Your task to perform on an android device: Search for the new Apple Watch on Best Buy Image 0: 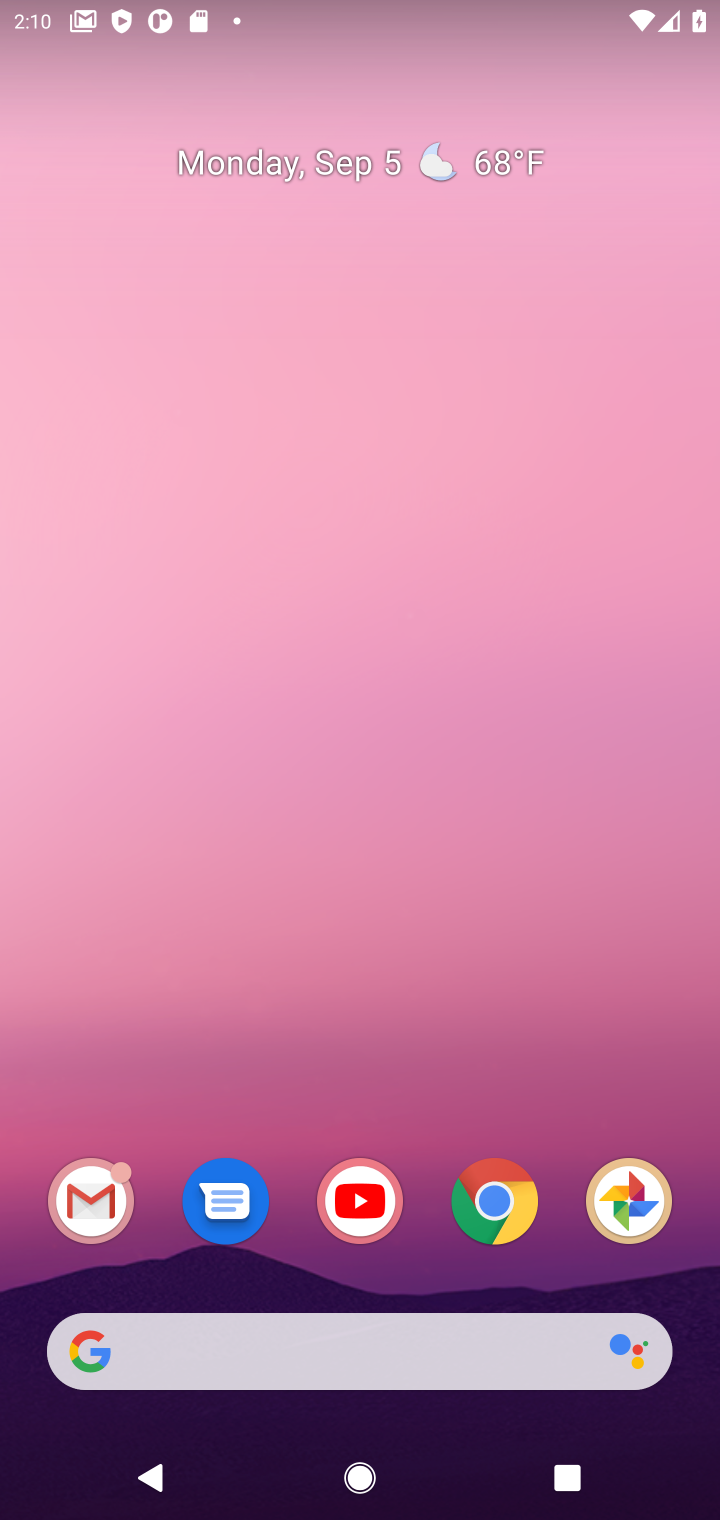
Step 0: press home button
Your task to perform on an android device: Search for the new Apple Watch on Best Buy Image 1: 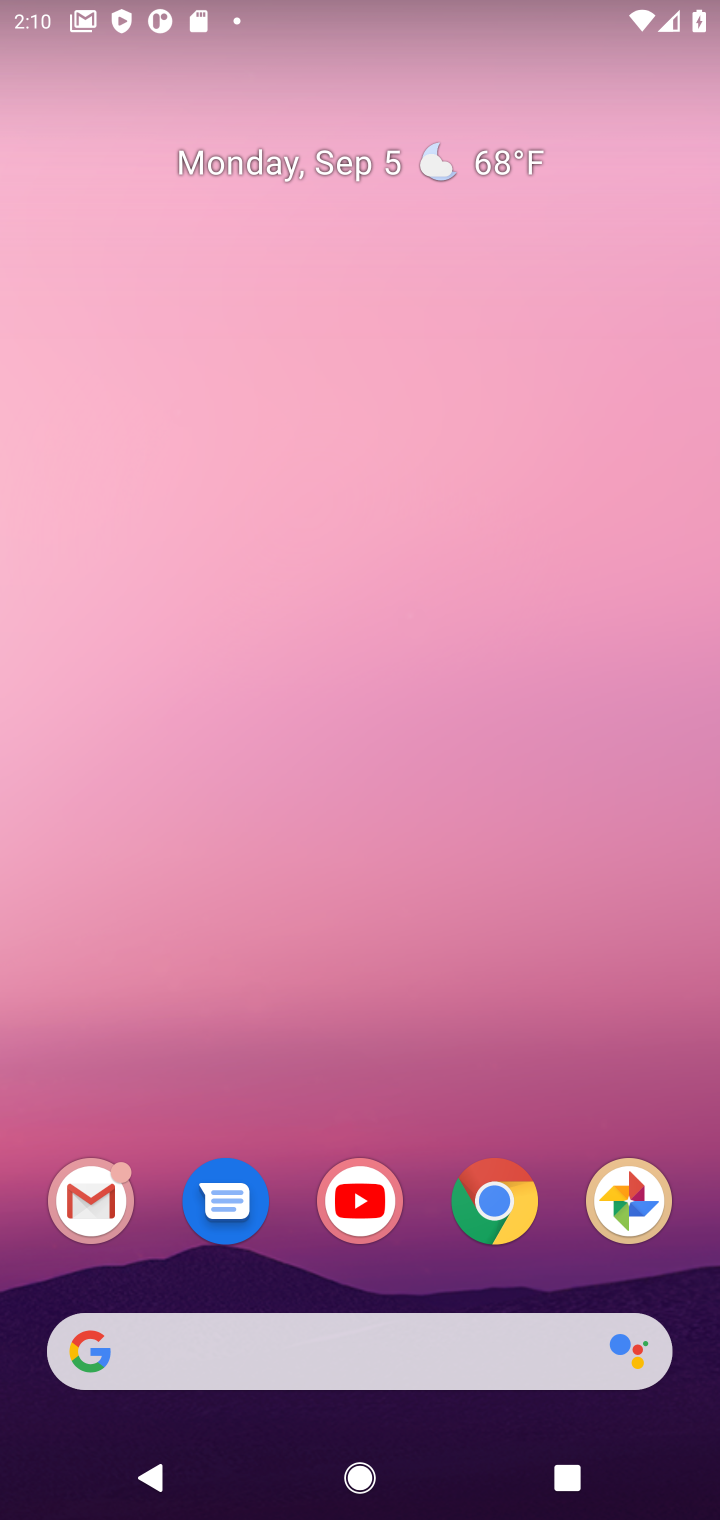
Step 1: click (495, 1190)
Your task to perform on an android device: Search for the new Apple Watch on Best Buy Image 2: 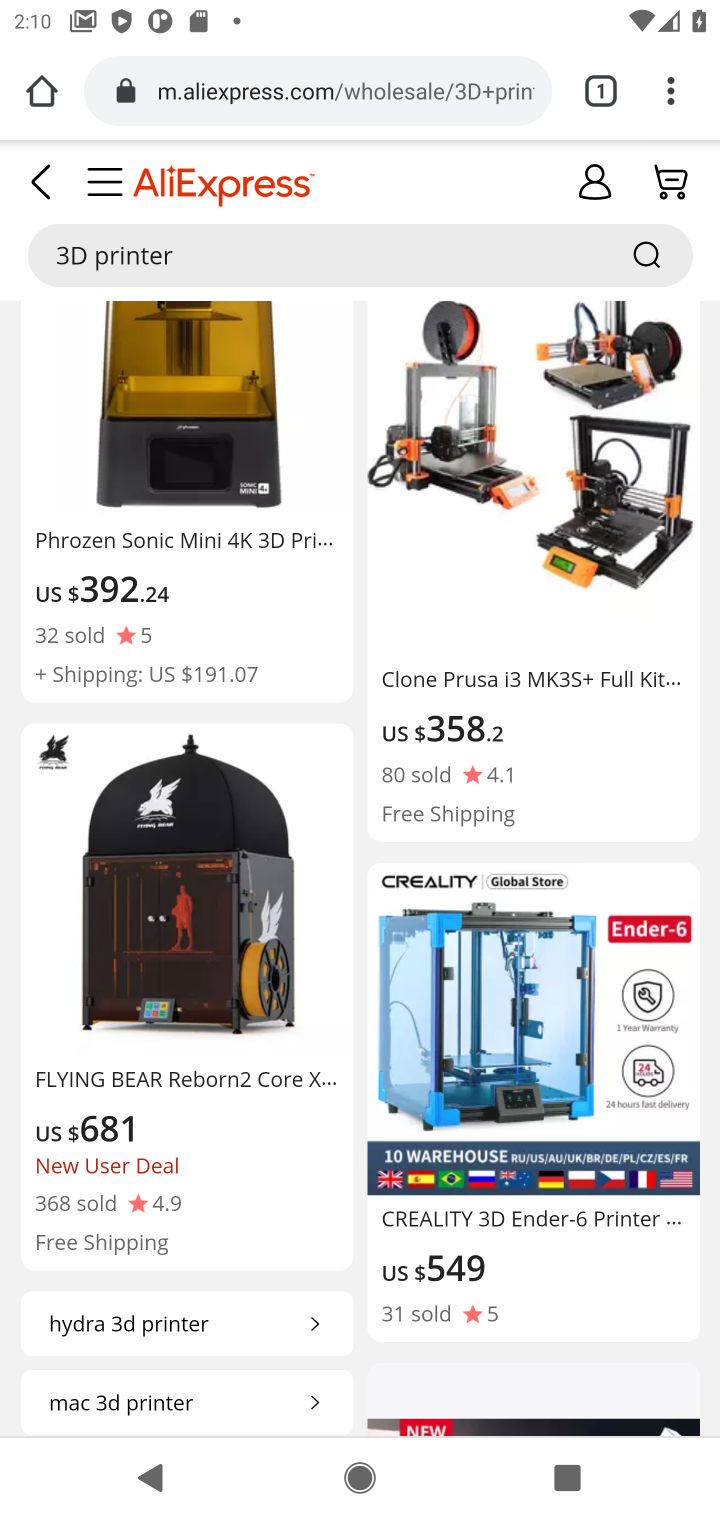
Step 2: click (416, 80)
Your task to perform on an android device: Search for the new Apple Watch on Best Buy Image 3: 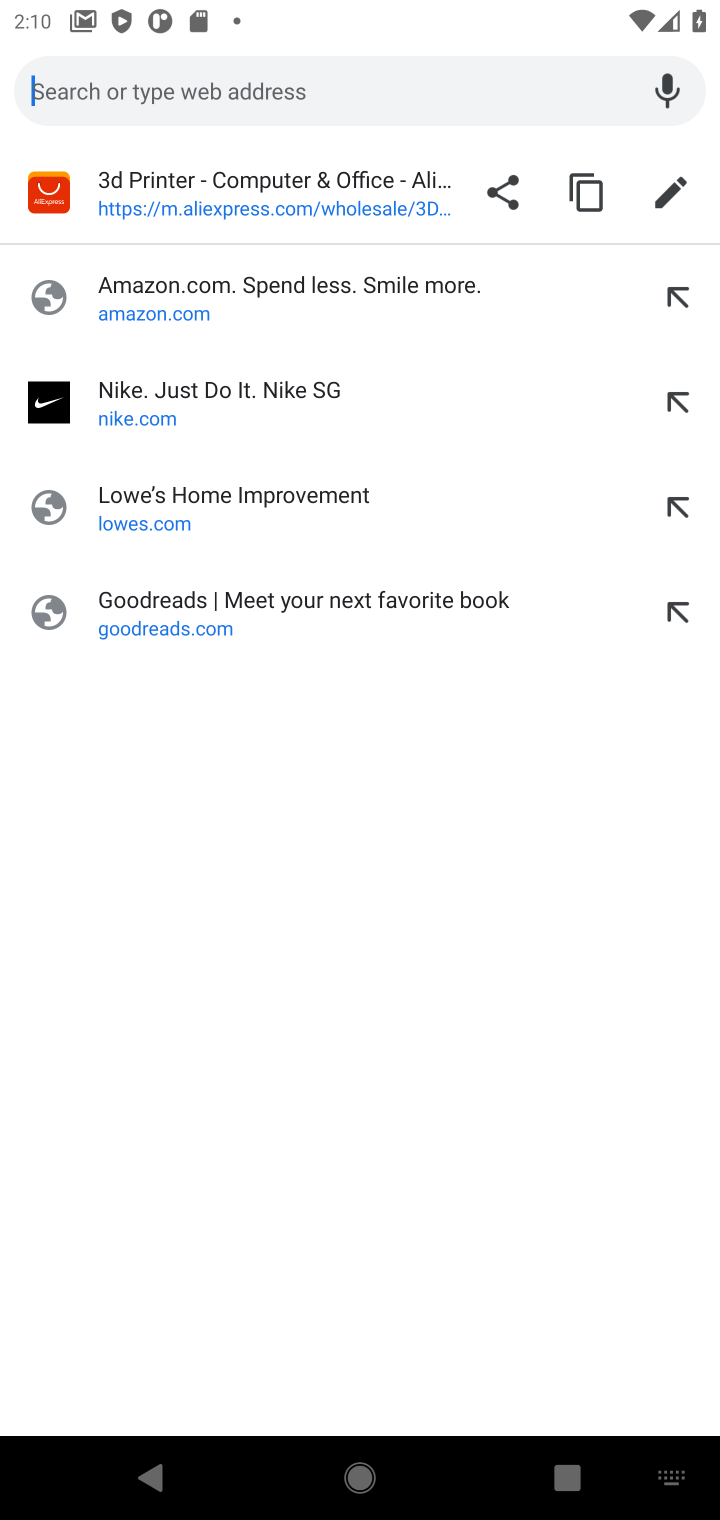
Step 3: type "Best Buy"
Your task to perform on an android device: Search for the new Apple Watch on Best Buy Image 4: 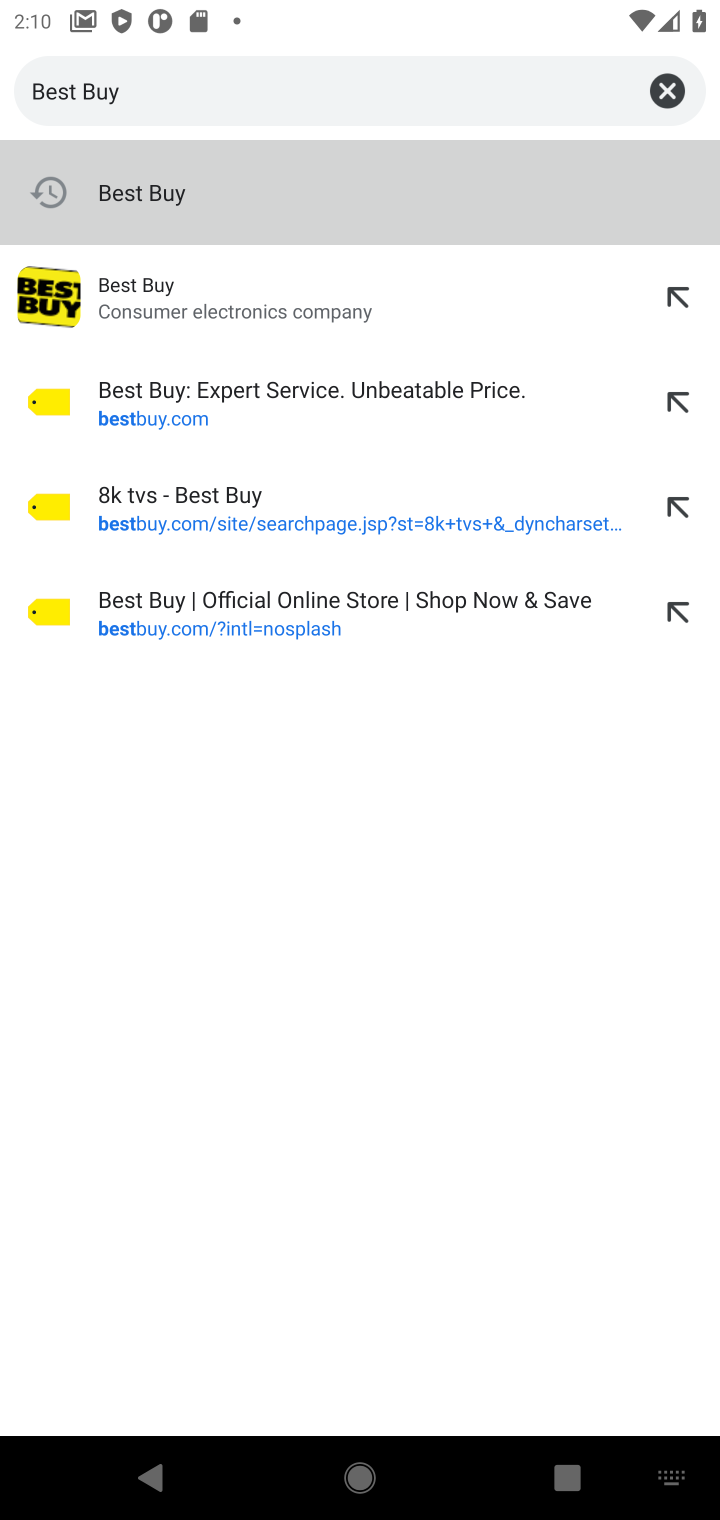
Step 4: press enter
Your task to perform on an android device: Search for the new Apple Watch on Best Buy Image 5: 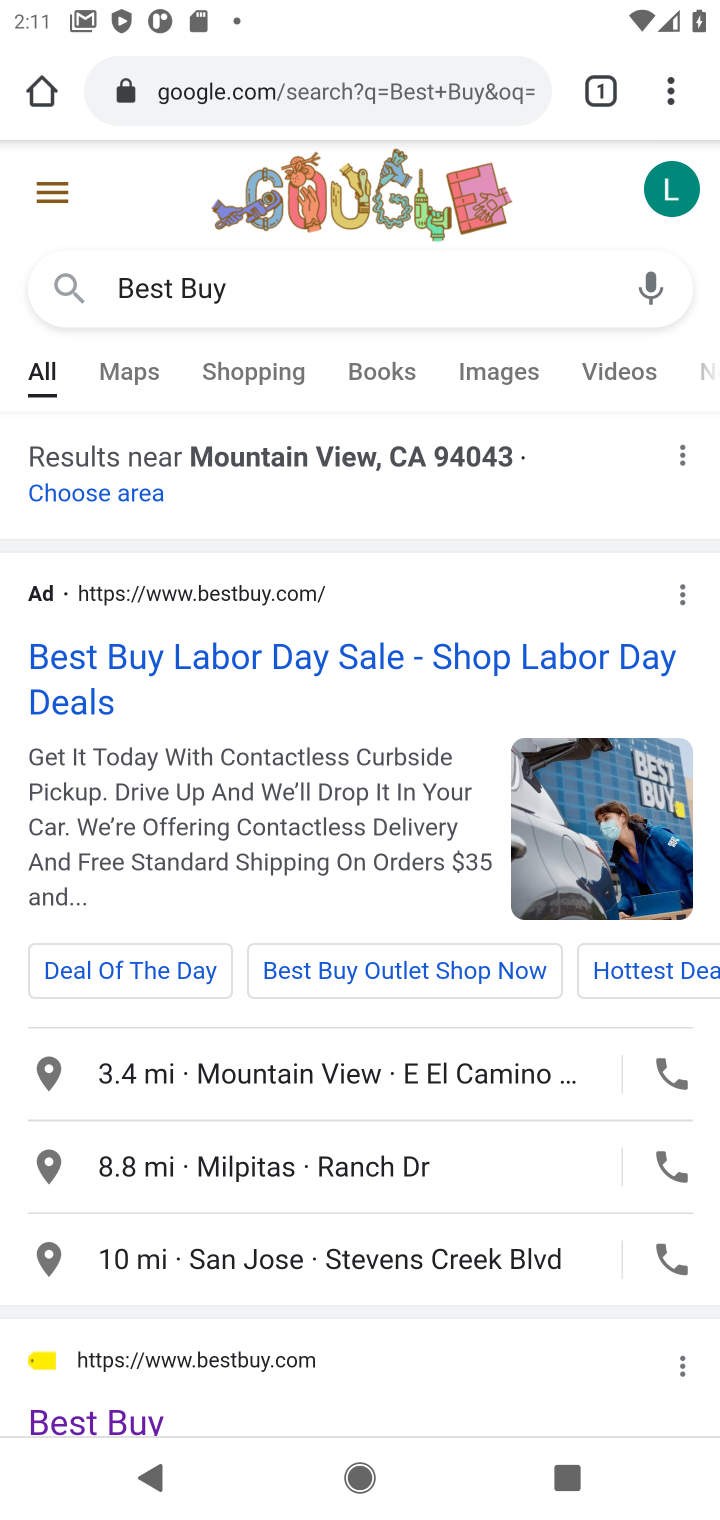
Step 5: drag from (357, 1331) to (668, 210)
Your task to perform on an android device: Search for the new Apple Watch on Best Buy Image 6: 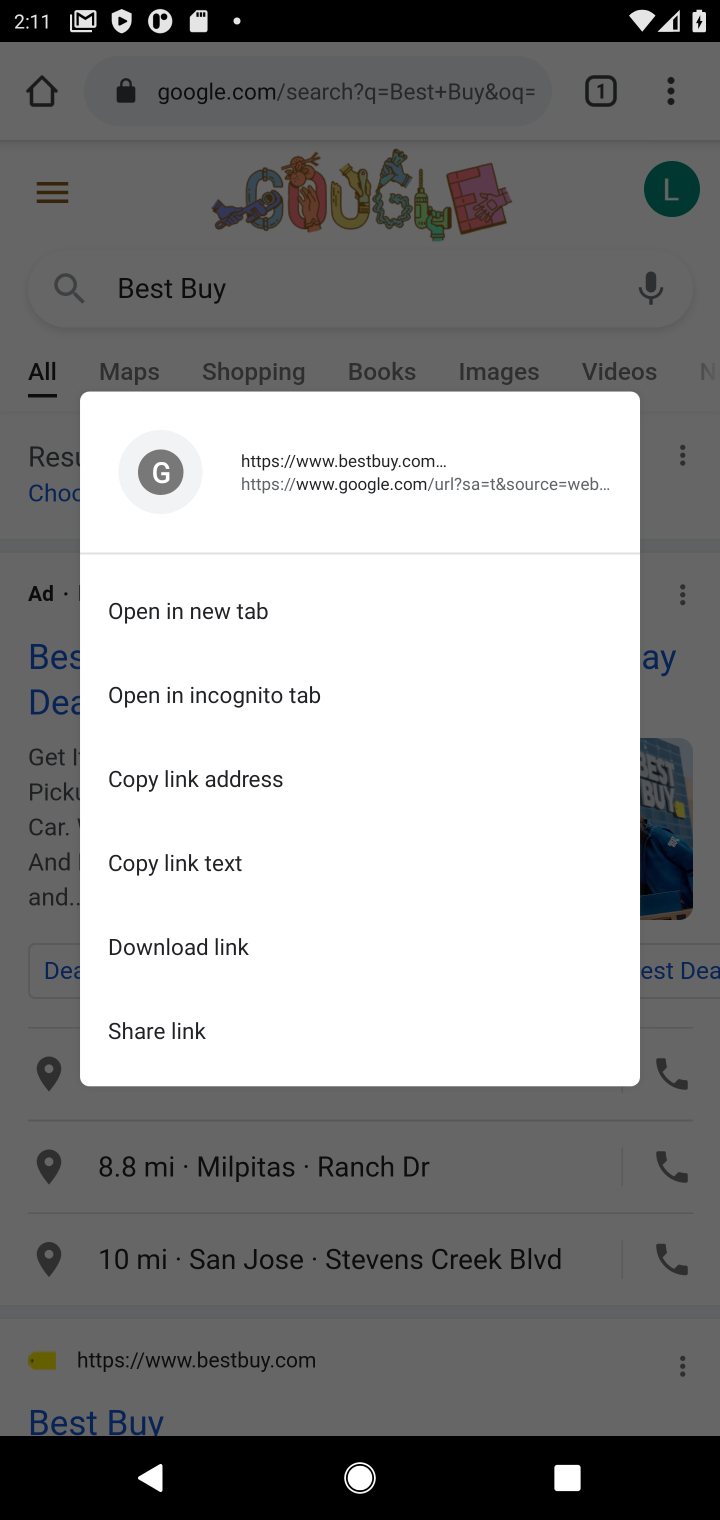
Step 6: click (564, 1333)
Your task to perform on an android device: Search for the new Apple Watch on Best Buy Image 7: 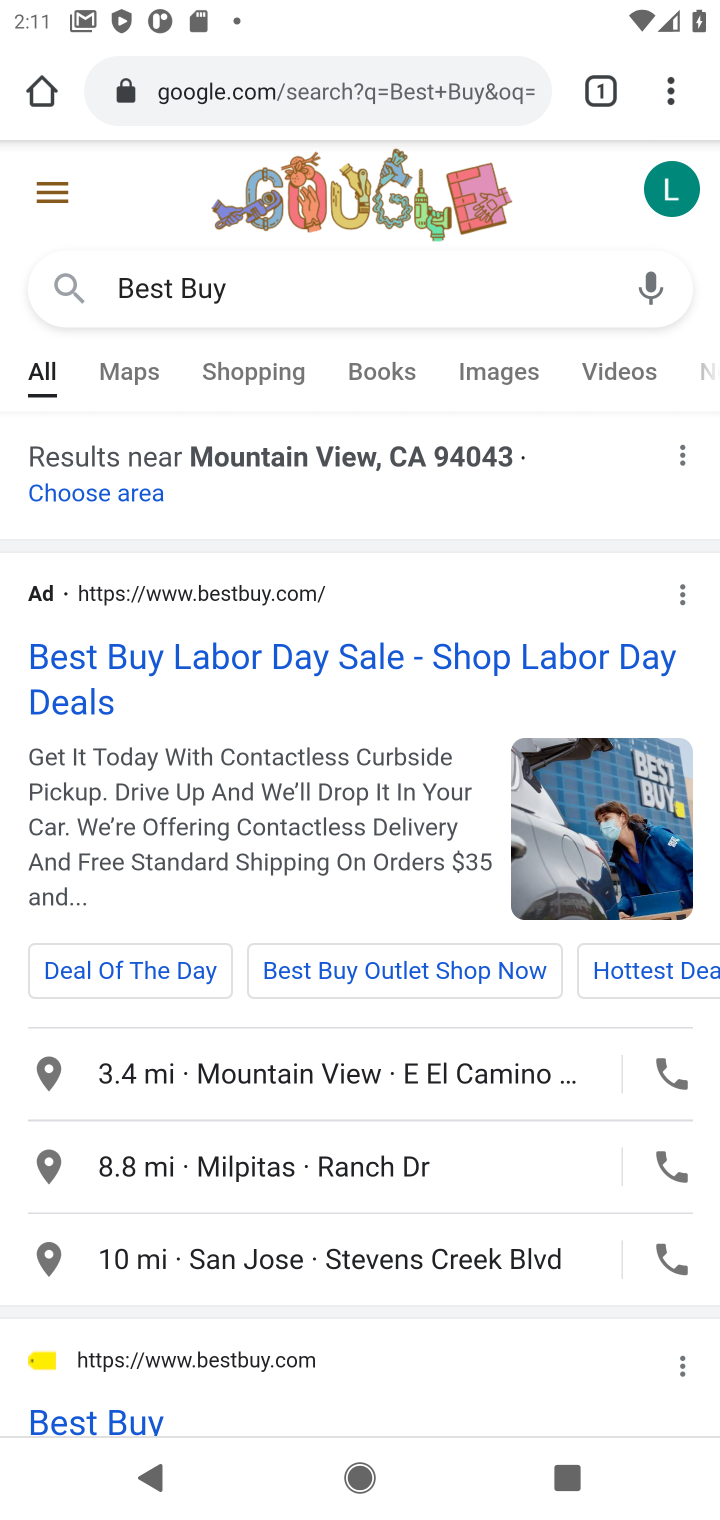
Step 7: drag from (87, 1310) to (460, 643)
Your task to perform on an android device: Search for the new Apple Watch on Best Buy Image 8: 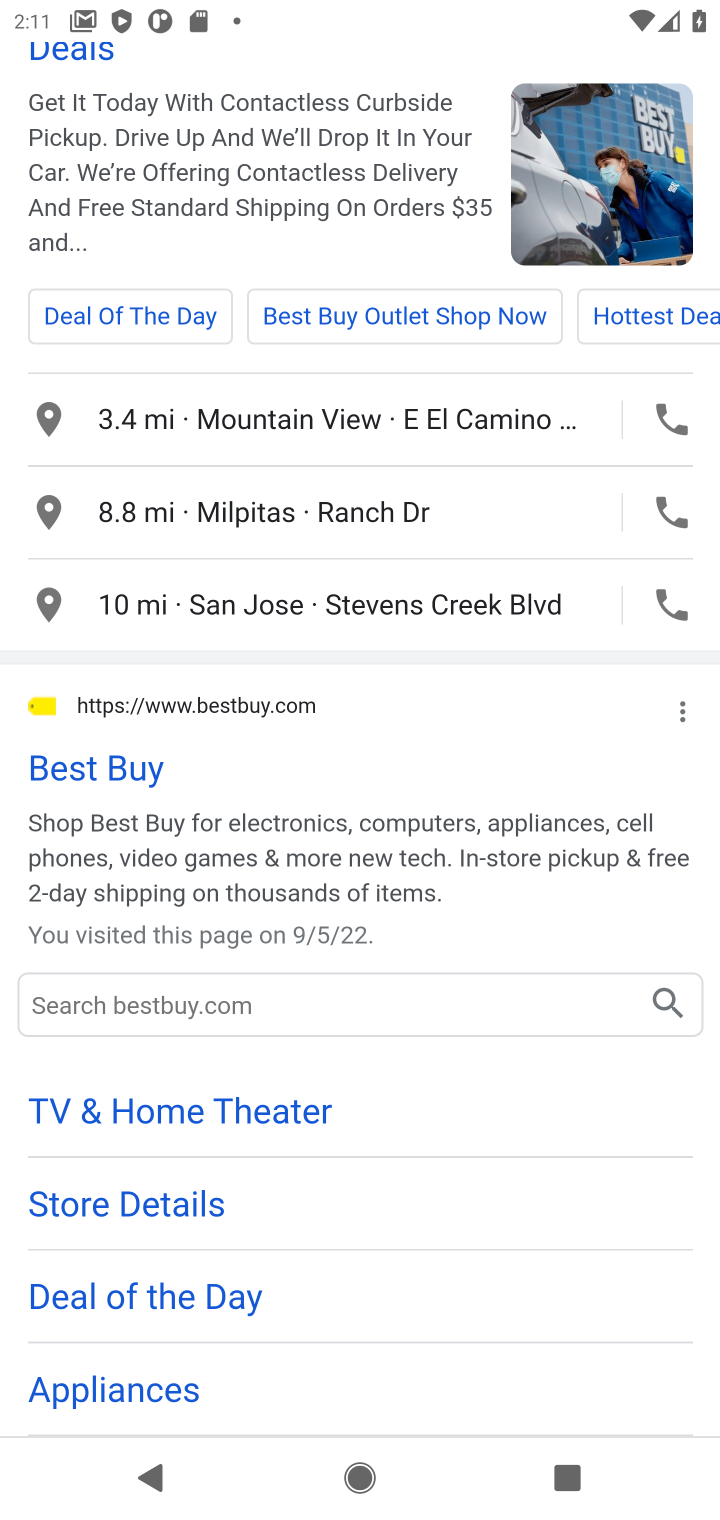
Step 8: click (131, 769)
Your task to perform on an android device: Search for the new Apple Watch on Best Buy Image 9: 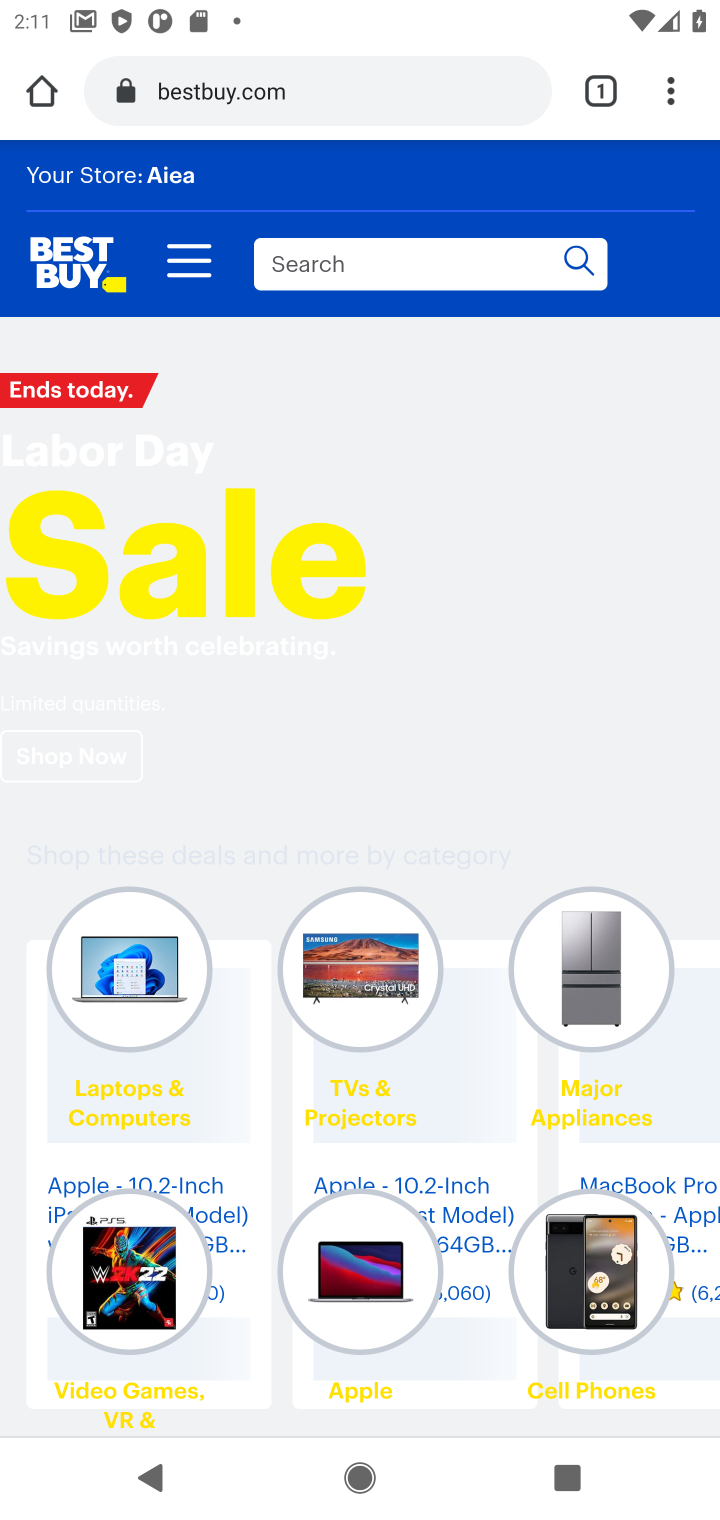
Step 9: click (440, 274)
Your task to perform on an android device: Search for the new Apple Watch on Best Buy Image 10: 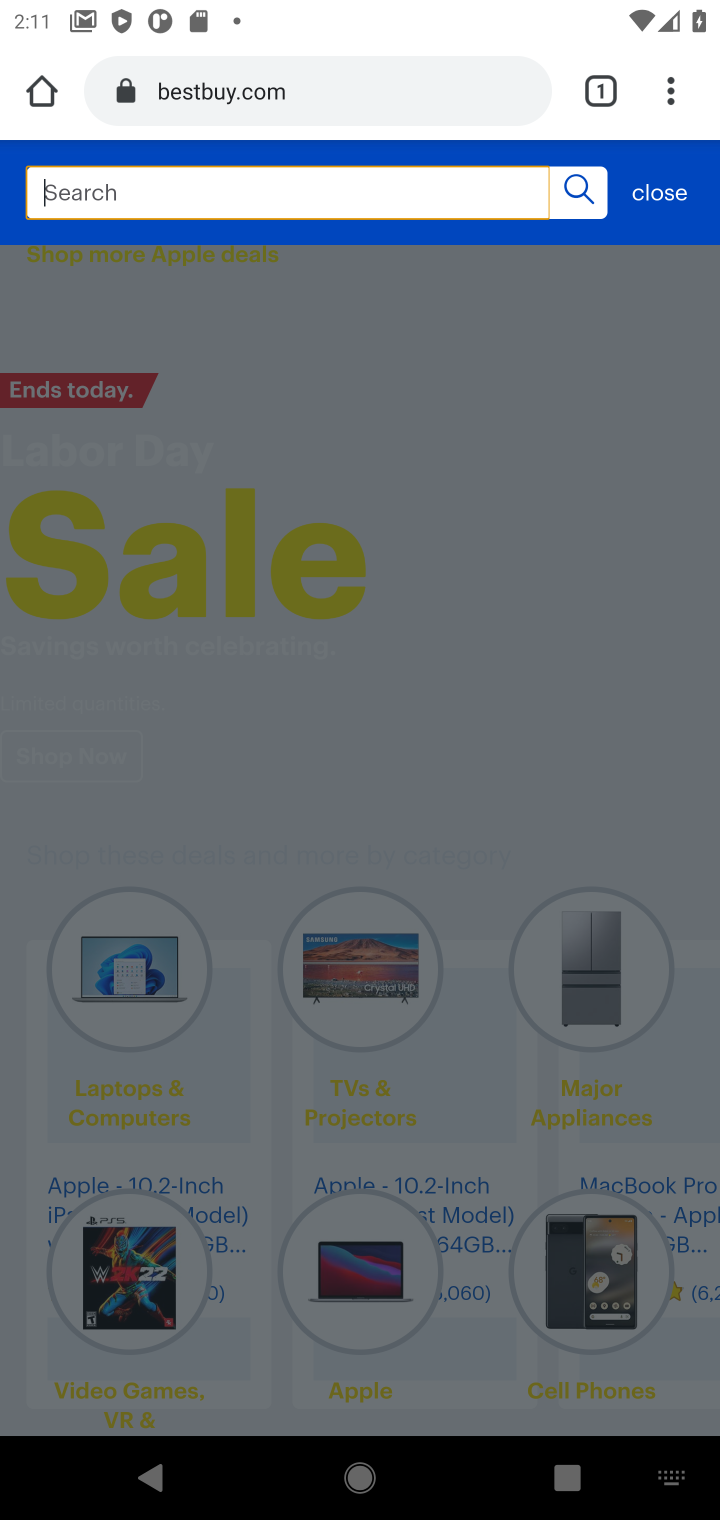
Step 10: press enter
Your task to perform on an android device: Search for the new Apple Watch on Best Buy Image 11: 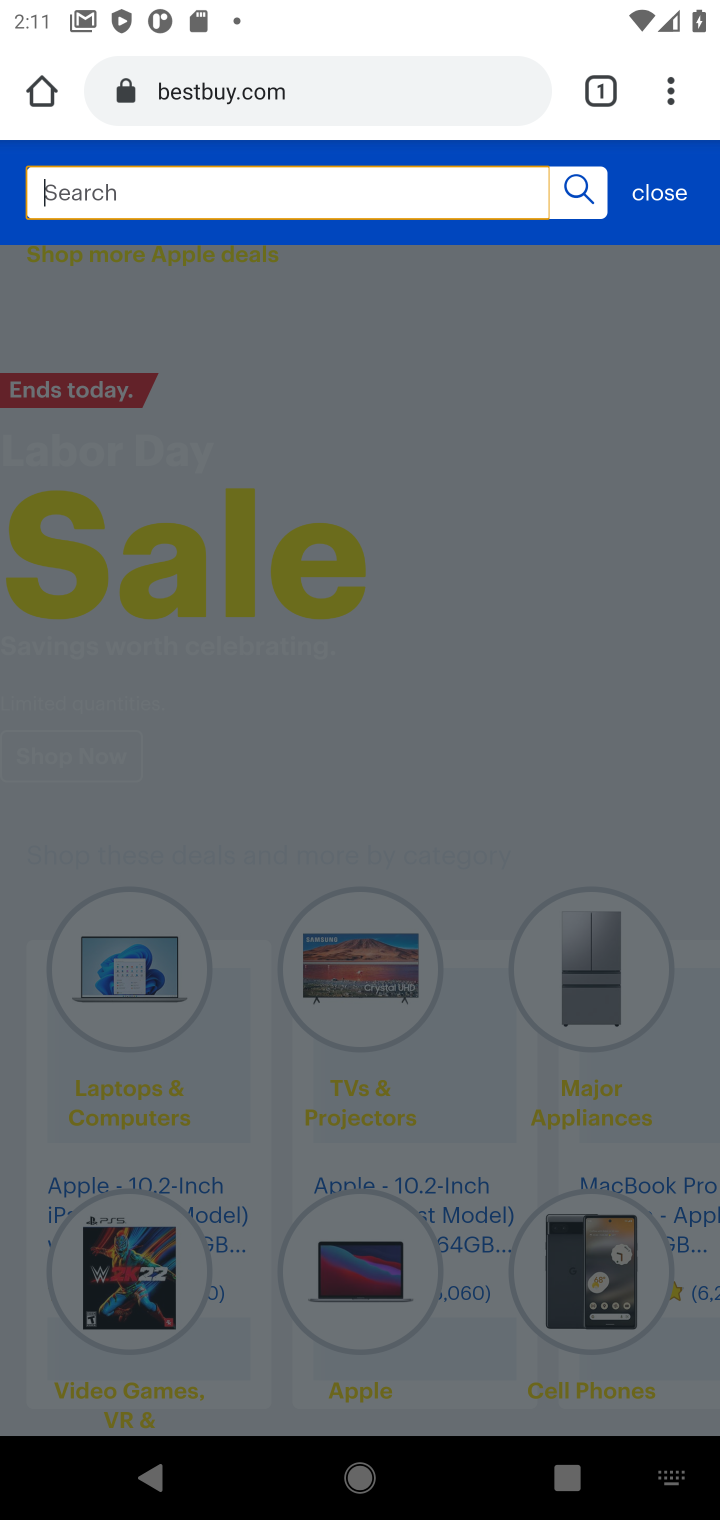
Step 11: type "Apple Watch"
Your task to perform on an android device: Search for the new Apple Watch on Best Buy Image 12: 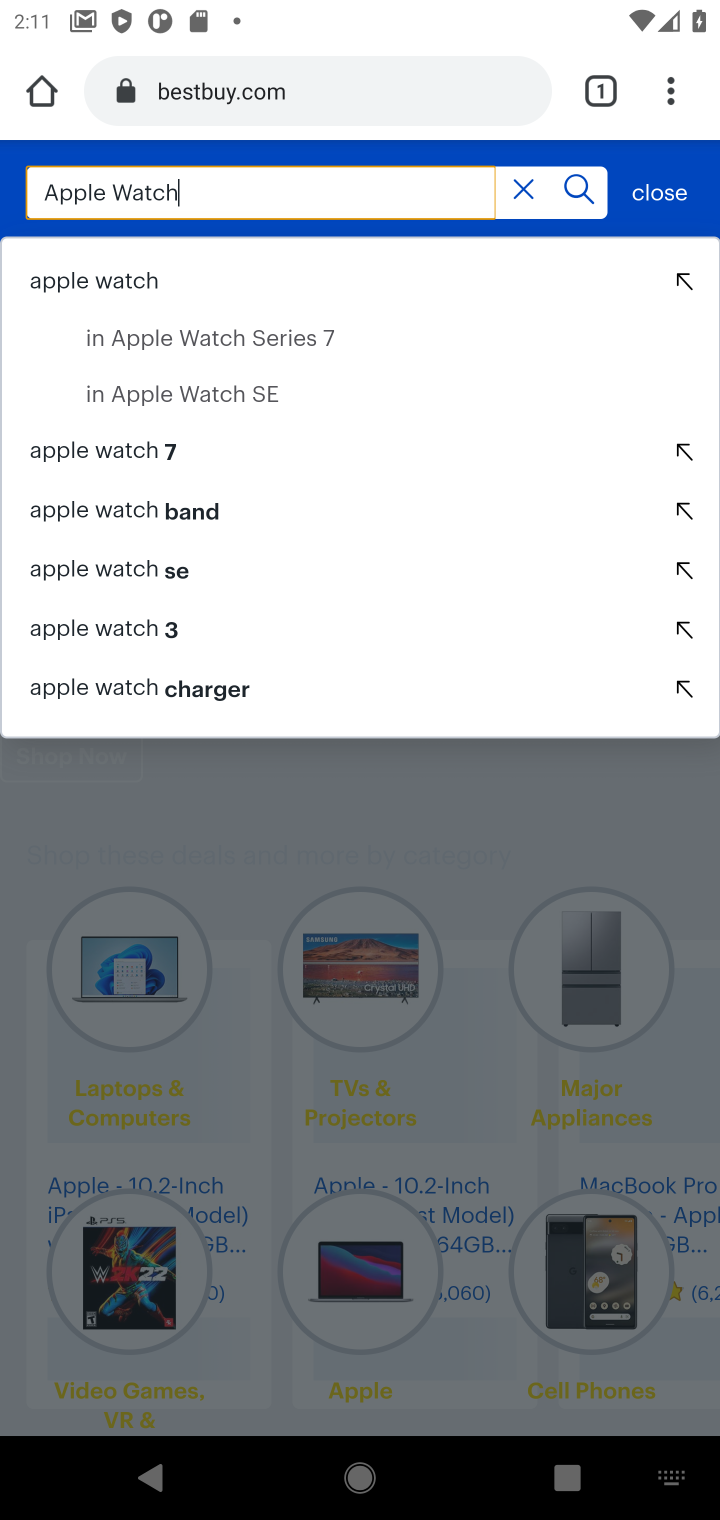
Step 12: click (563, 182)
Your task to perform on an android device: Search for the new Apple Watch on Best Buy Image 13: 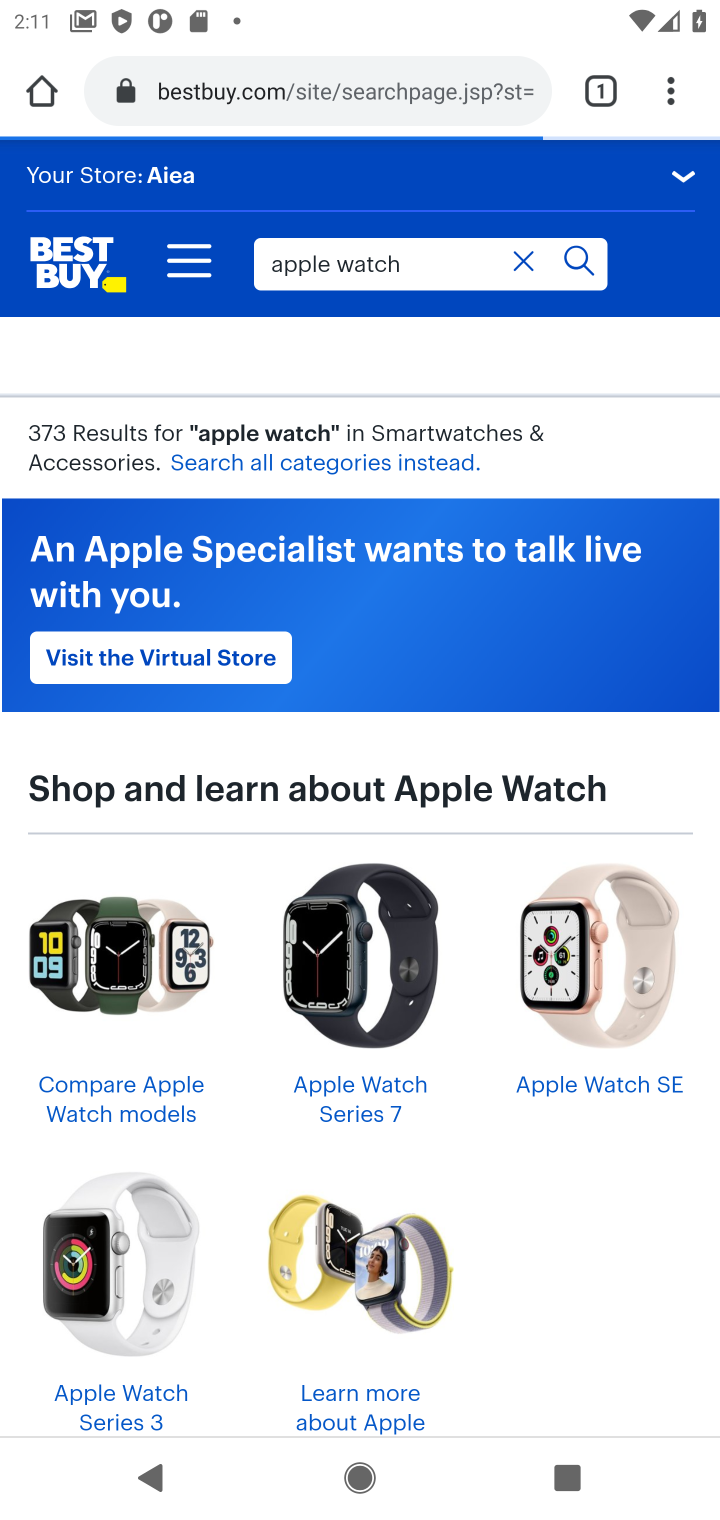
Step 13: task complete